Your task to perform on an android device: star an email in the gmail app Image 0: 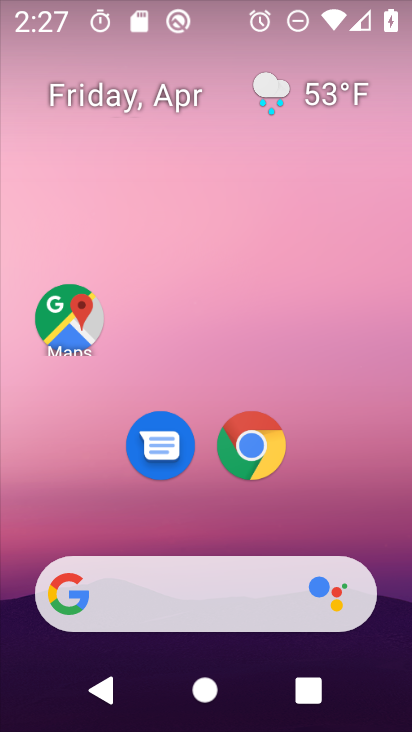
Step 0: drag from (368, 526) to (375, 63)
Your task to perform on an android device: star an email in the gmail app Image 1: 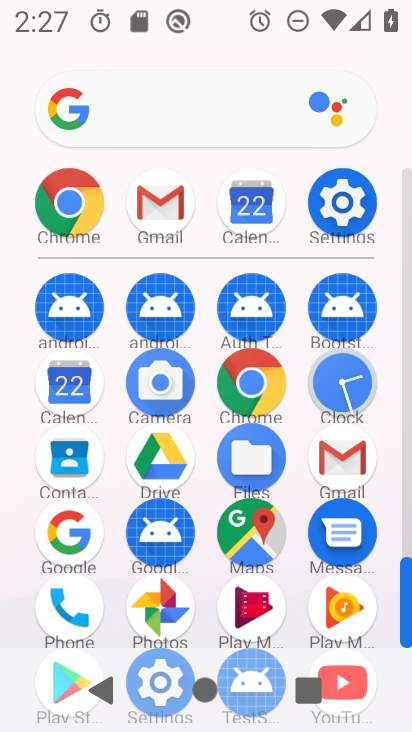
Step 1: click (339, 470)
Your task to perform on an android device: star an email in the gmail app Image 2: 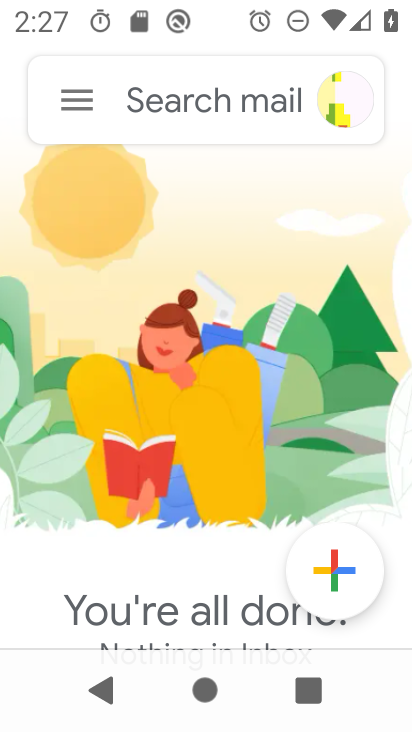
Step 2: task complete